Your task to perform on an android device: set the stopwatch Image 0: 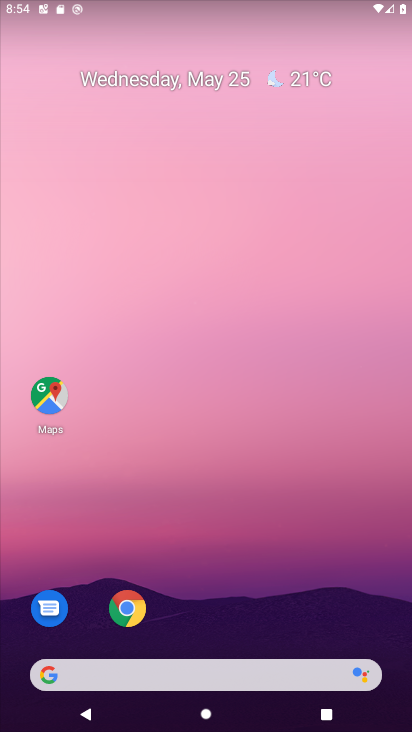
Step 0: drag from (228, 722) to (229, 121)
Your task to perform on an android device: set the stopwatch Image 1: 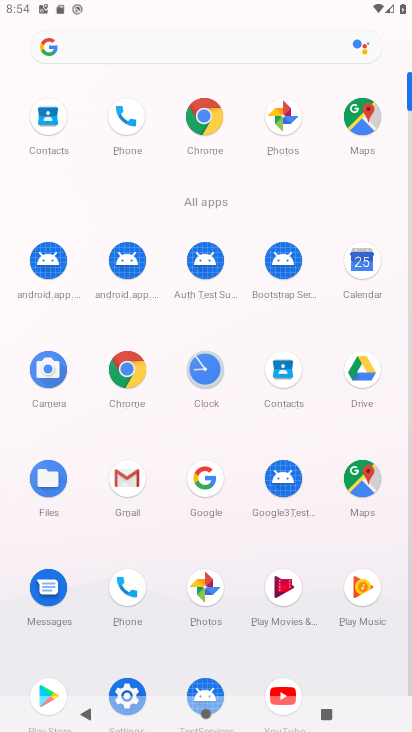
Step 1: click (201, 369)
Your task to perform on an android device: set the stopwatch Image 2: 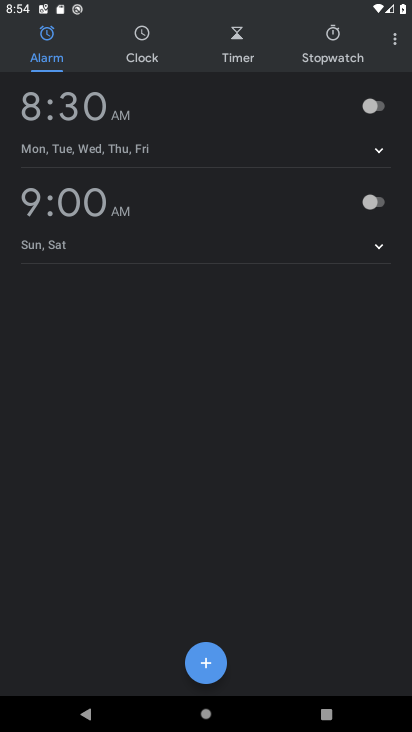
Step 2: click (327, 38)
Your task to perform on an android device: set the stopwatch Image 3: 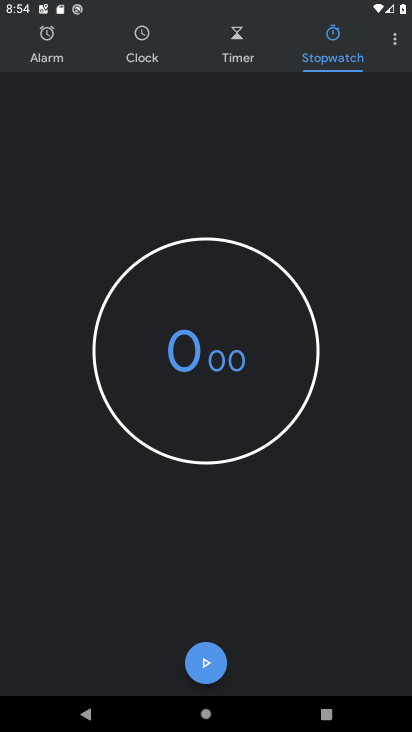
Step 3: click (183, 352)
Your task to perform on an android device: set the stopwatch Image 4: 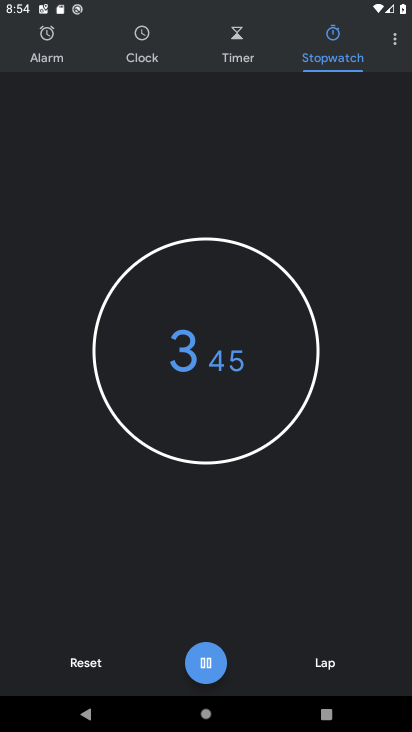
Step 4: type "8888"
Your task to perform on an android device: set the stopwatch Image 5: 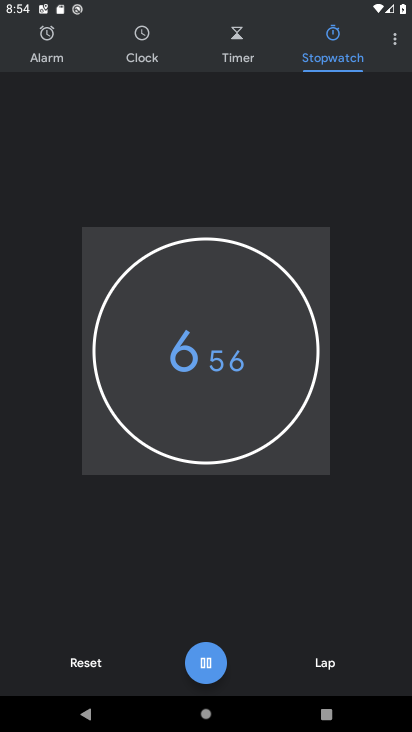
Step 5: task complete